Your task to perform on an android device: Turn on the flashlight Image 0: 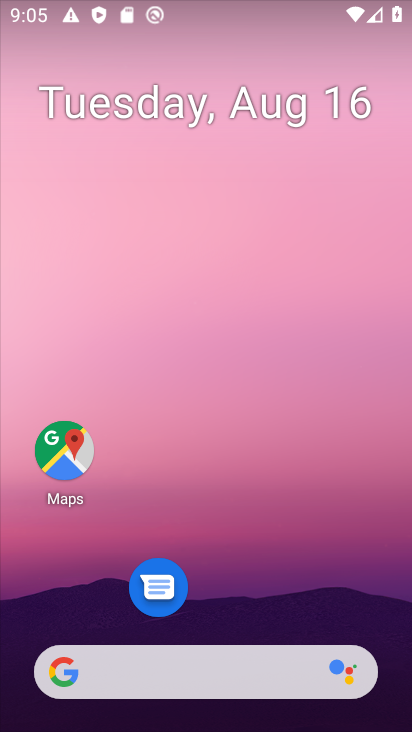
Step 0: drag from (262, 618) to (279, 3)
Your task to perform on an android device: Turn on the flashlight Image 1: 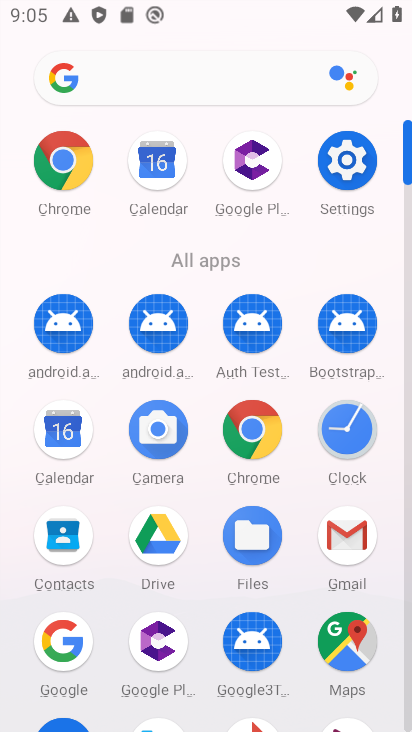
Step 1: click (346, 181)
Your task to perform on an android device: Turn on the flashlight Image 2: 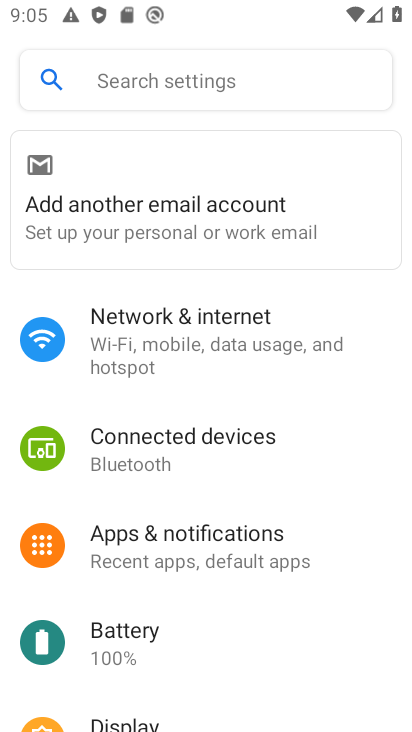
Step 2: task complete